Your task to perform on an android device: turn pop-ups on in chrome Image 0: 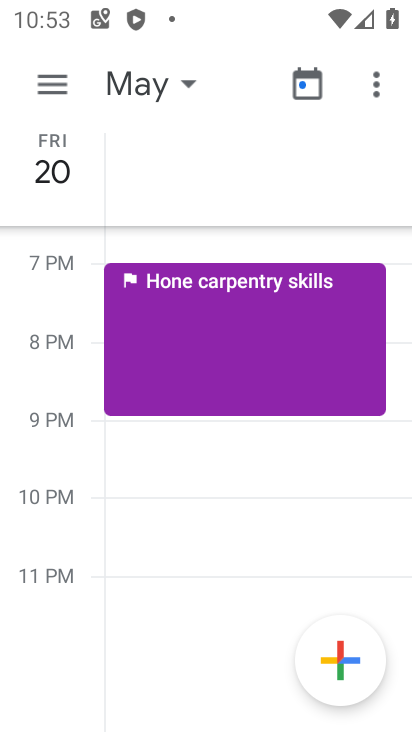
Step 0: press home button
Your task to perform on an android device: turn pop-ups on in chrome Image 1: 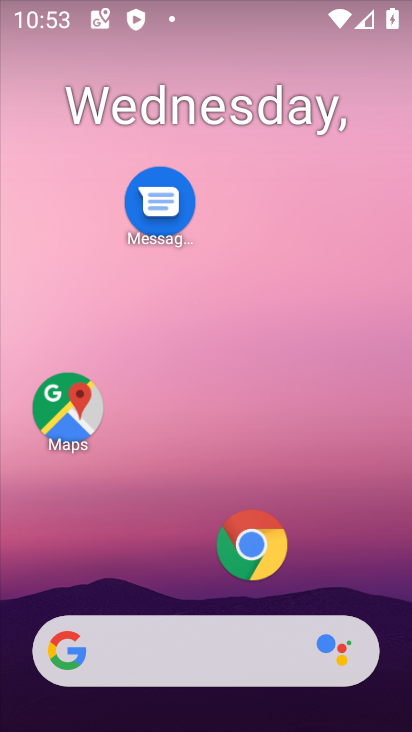
Step 1: click (251, 547)
Your task to perform on an android device: turn pop-ups on in chrome Image 2: 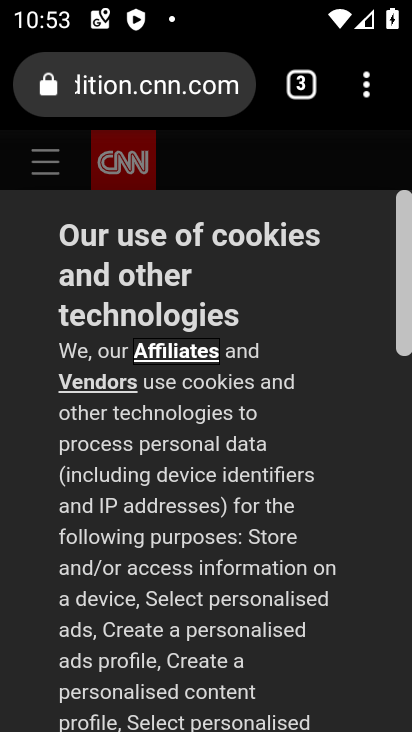
Step 2: click (367, 91)
Your task to perform on an android device: turn pop-ups on in chrome Image 3: 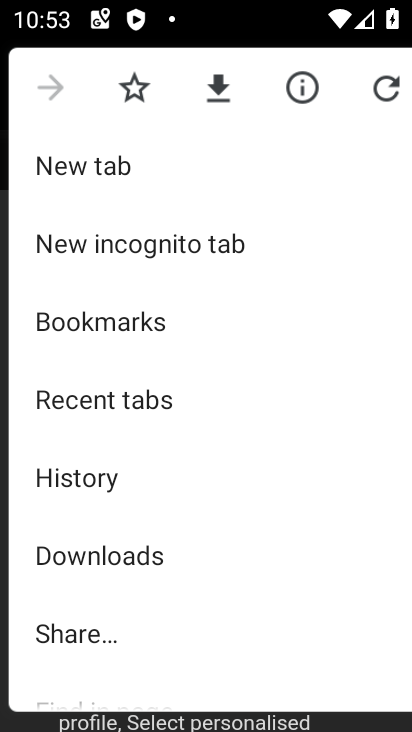
Step 3: drag from (209, 607) to (270, 364)
Your task to perform on an android device: turn pop-ups on in chrome Image 4: 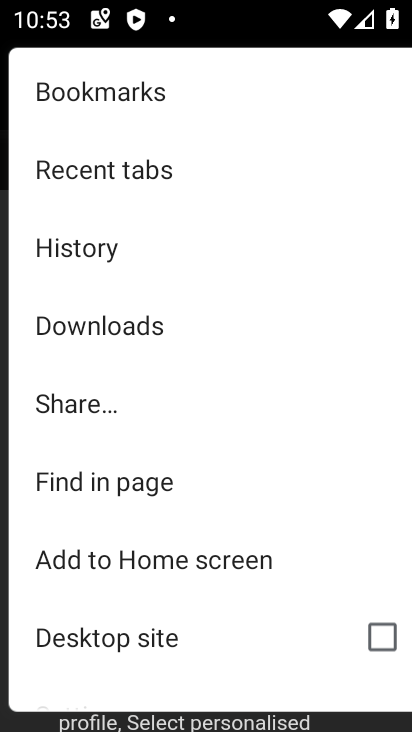
Step 4: drag from (157, 631) to (247, 313)
Your task to perform on an android device: turn pop-ups on in chrome Image 5: 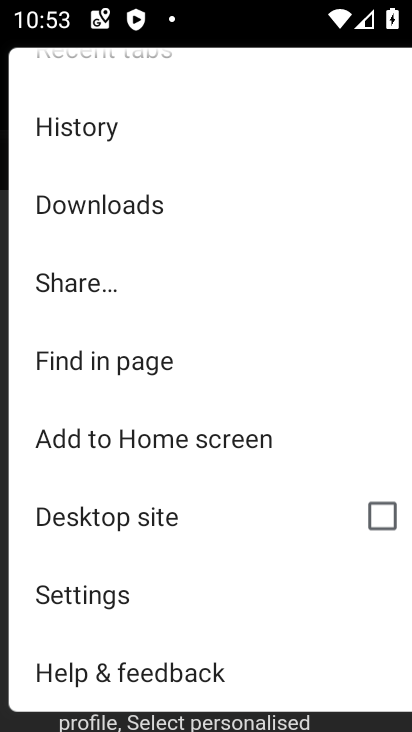
Step 5: click (99, 597)
Your task to perform on an android device: turn pop-ups on in chrome Image 6: 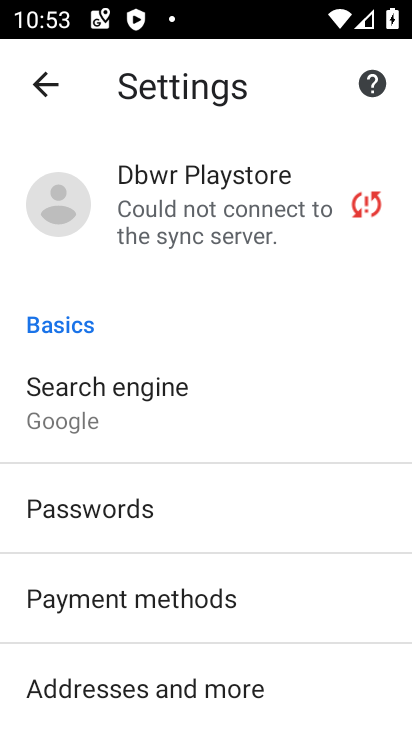
Step 6: drag from (228, 578) to (244, 368)
Your task to perform on an android device: turn pop-ups on in chrome Image 7: 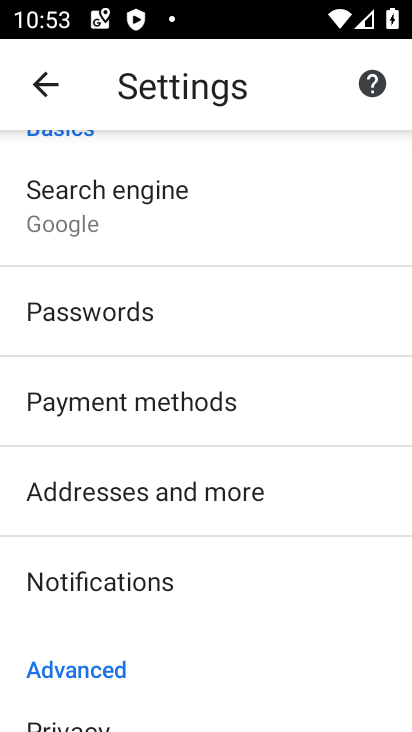
Step 7: drag from (235, 602) to (266, 347)
Your task to perform on an android device: turn pop-ups on in chrome Image 8: 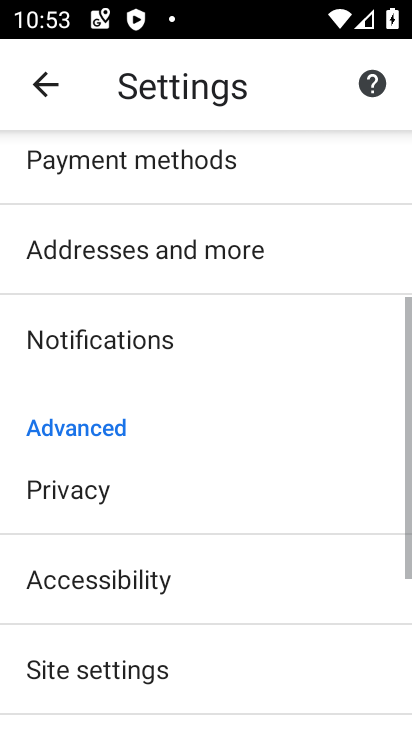
Step 8: drag from (225, 616) to (251, 452)
Your task to perform on an android device: turn pop-ups on in chrome Image 9: 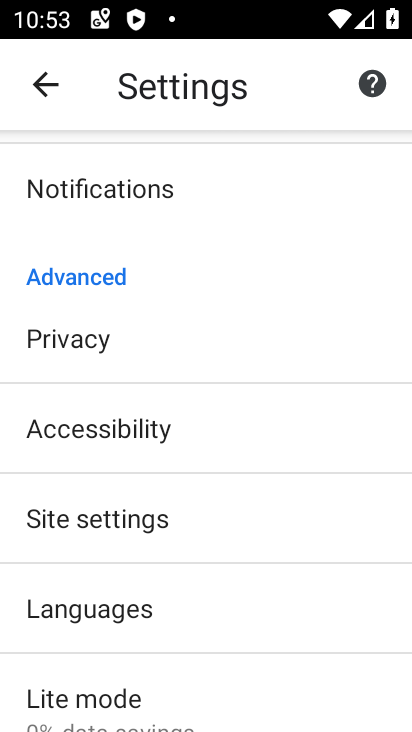
Step 9: click (174, 520)
Your task to perform on an android device: turn pop-ups on in chrome Image 10: 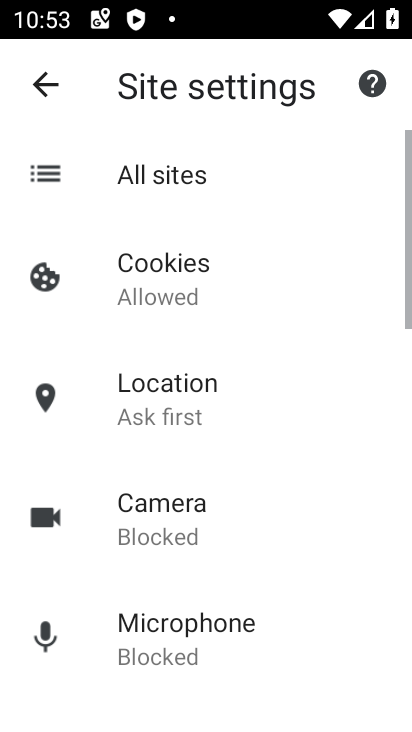
Step 10: drag from (213, 609) to (239, 392)
Your task to perform on an android device: turn pop-ups on in chrome Image 11: 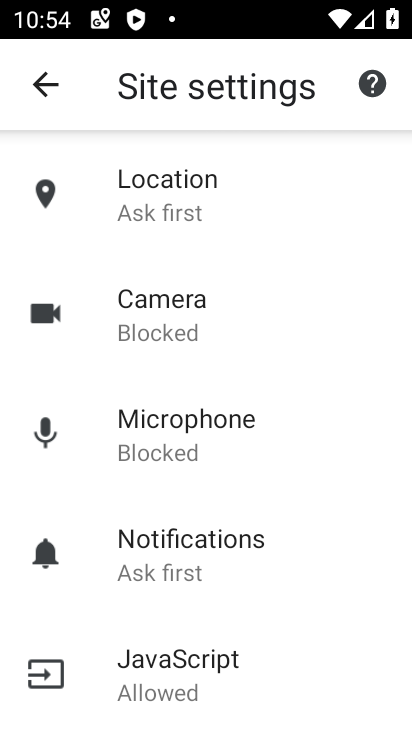
Step 11: drag from (259, 621) to (279, 442)
Your task to perform on an android device: turn pop-ups on in chrome Image 12: 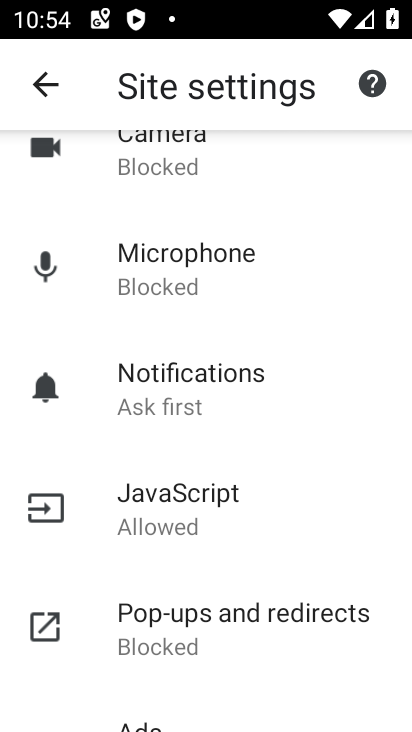
Step 12: click (252, 612)
Your task to perform on an android device: turn pop-ups on in chrome Image 13: 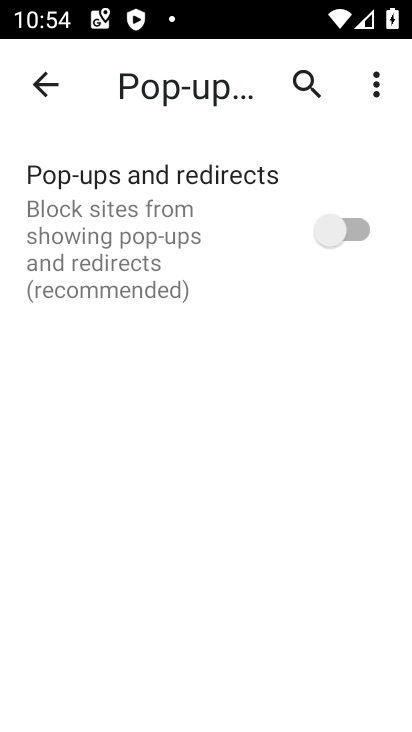
Step 13: click (358, 234)
Your task to perform on an android device: turn pop-ups on in chrome Image 14: 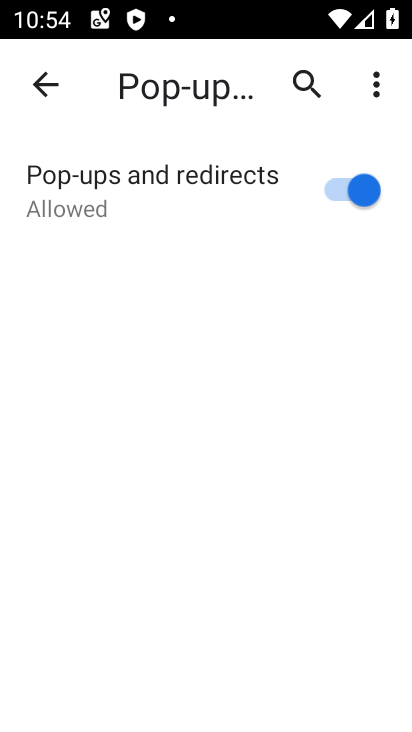
Step 14: task complete